Your task to perform on an android device: turn notification dots off Image 0: 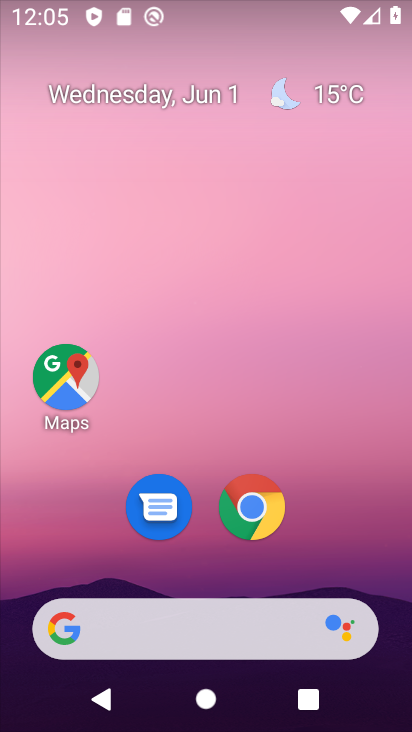
Step 0: drag from (328, 529) to (251, 138)
Your task to perform on an android device: turn notification dots off Image 1: 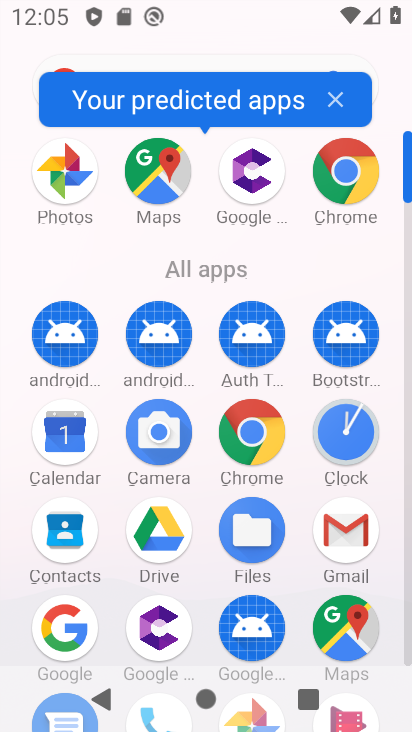
Step 1: drag from (113, 519) to (104, 247)
Your task to perform on an android device: turn notification dots off Image 2: 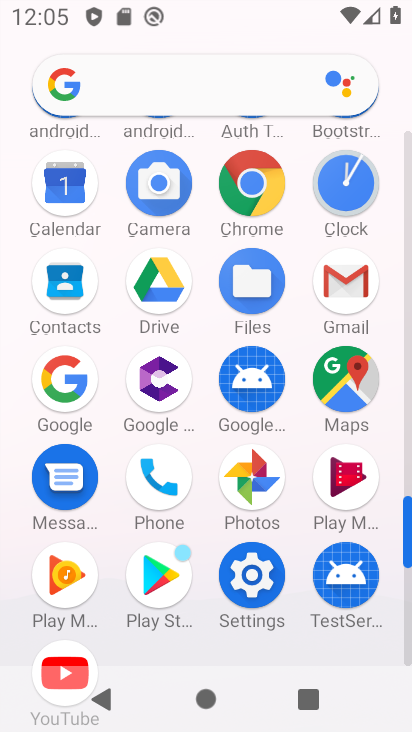
Step 2: click (252, 576)
Your task to perform on an android device: turn notification dots off Image 3: 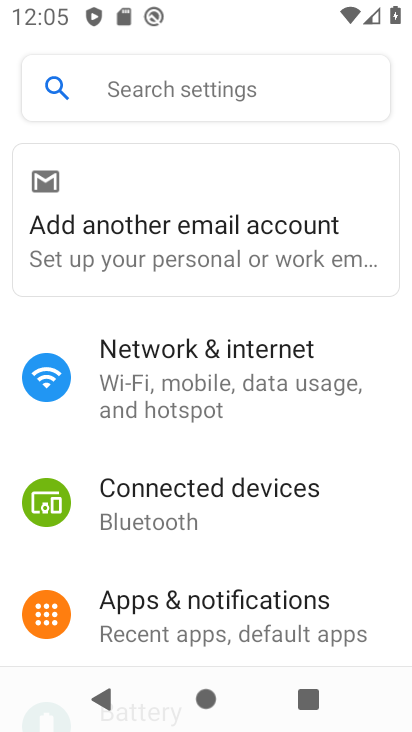
Step 3: drag from (190, 581) to (236, 502)
Your task to perform on an android device: turn notification dots off Image 4: 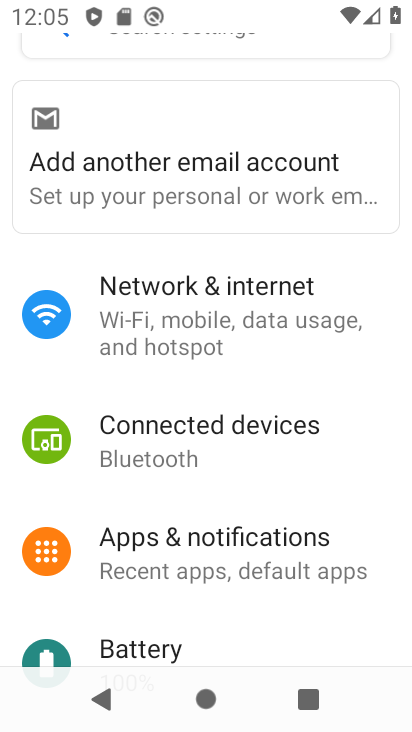
Step 4: click (232, 549)
Your task to perform on an android device: turn notification dots off Image 5: 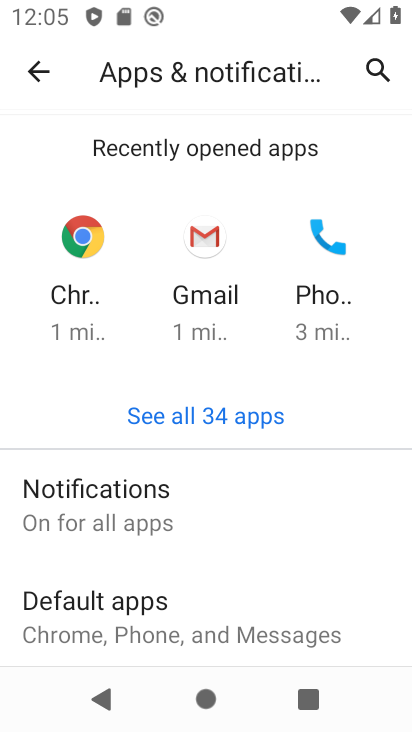
Step 5: click (107, 510)
Your task to perform on an android device: turn notification dots off Image 6: 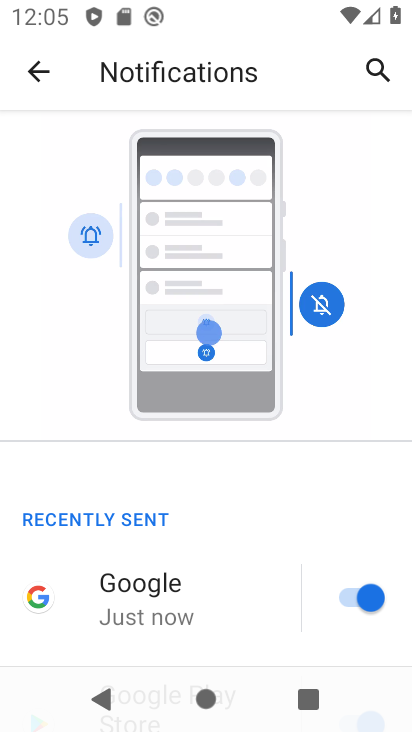
Step 6: drag from (210, 546) to (231, 395)
Your task to perform on an android device: turn notification dots off Image 7: 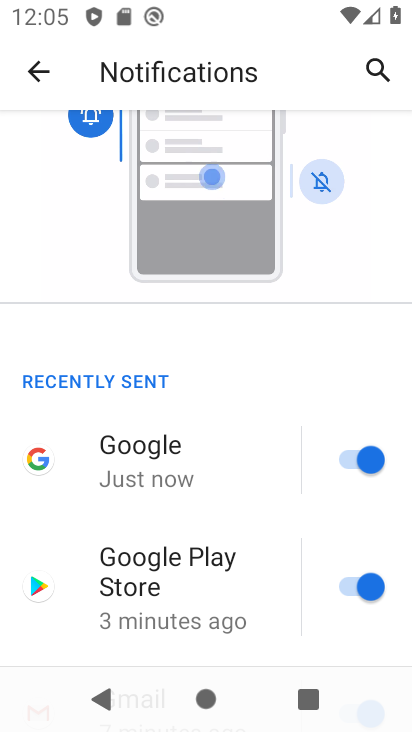
Step 7: drag from (185, 506) to (190, 414)
Your task to perform on an android device: turn notification dots off Image 8: 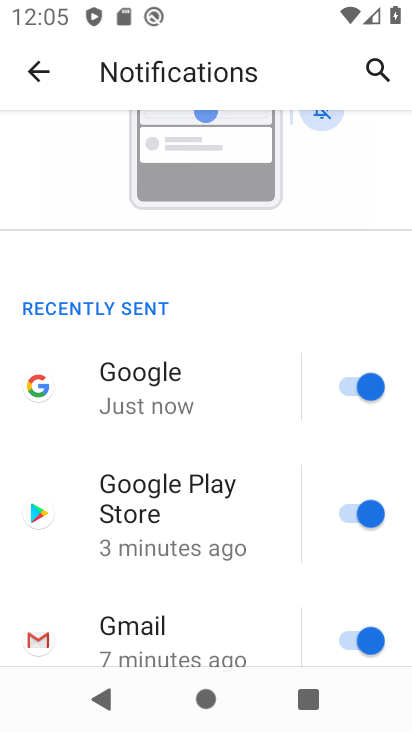
Step 8: drag from (144, 585) to (171, 440)
Your task to perform on an android device: turn notification dots off Image 9: 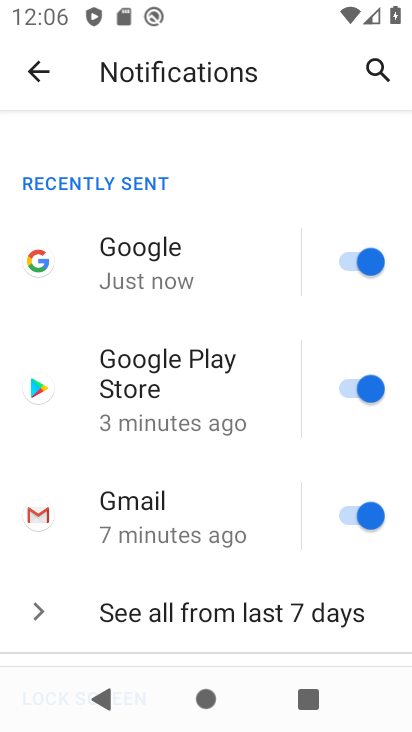
Step 9: drag from (139, 551) to (169, 396)
Your task to perform on an android device: turn notification dots off Image 10: 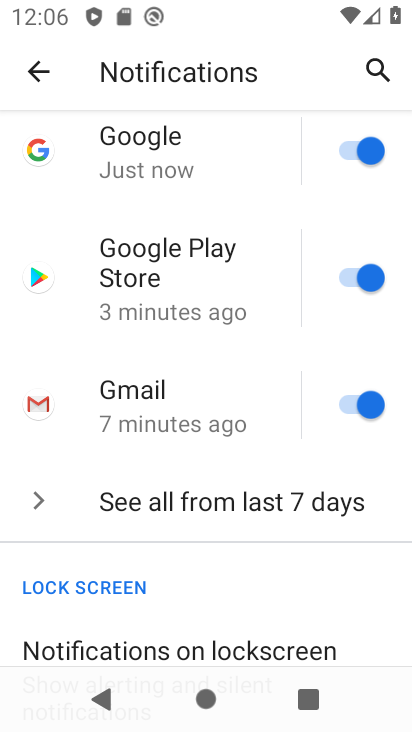
Step 10: drag from (161, 619) to (211, 435)
Your task to perform on an android device: turn notification dots off Image 11: 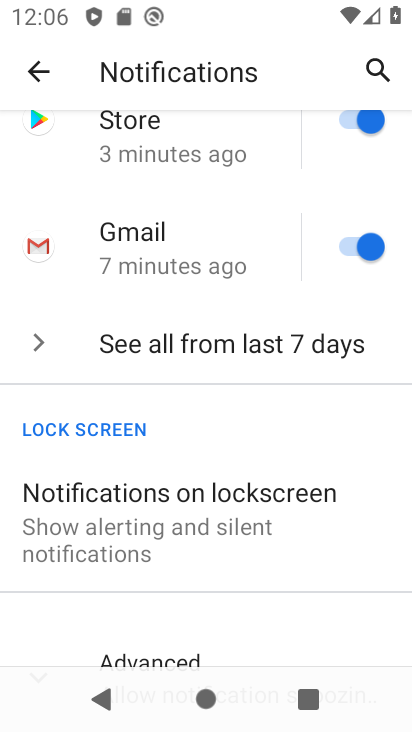
Step 11: drag from (188, 615) to (215, 525)
Your task to perform on an android device: turn notification dots off Image 12: 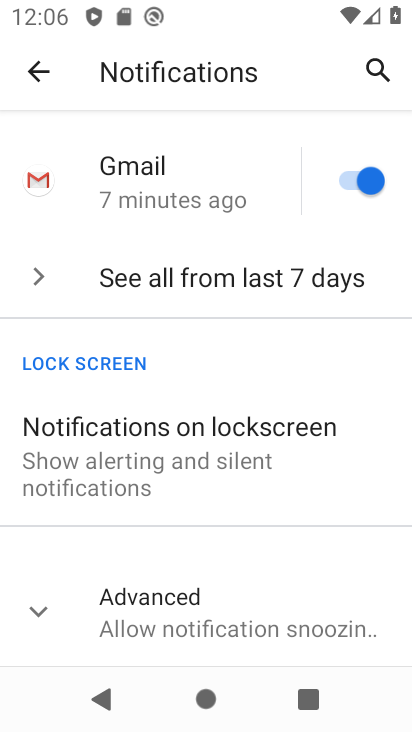
Step 12: click (231, 622)
Your task to perform on an android device: turn notification dots off Image 13: 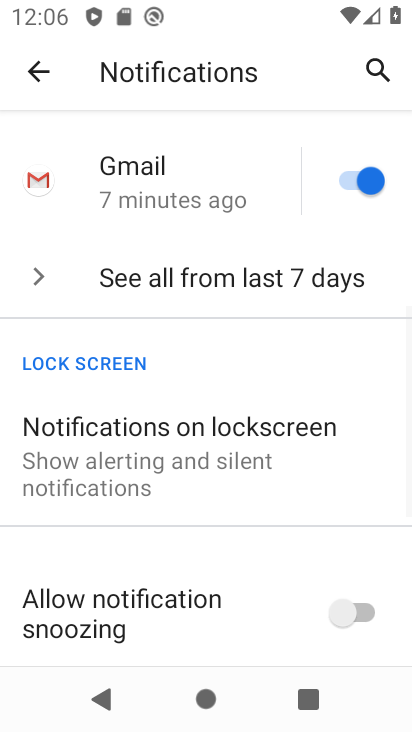
Step 13: drag from (199, 644) to (190, 485)
Your task to perform on an android device: turn notification dots off Image 14: 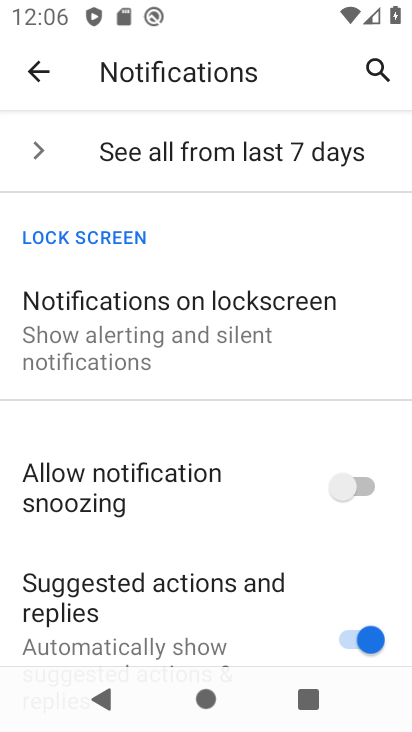
Step 14: drag from (161, 623) to (171, 422)
Your task to perform on an android device: turn notification dots off Image 15: 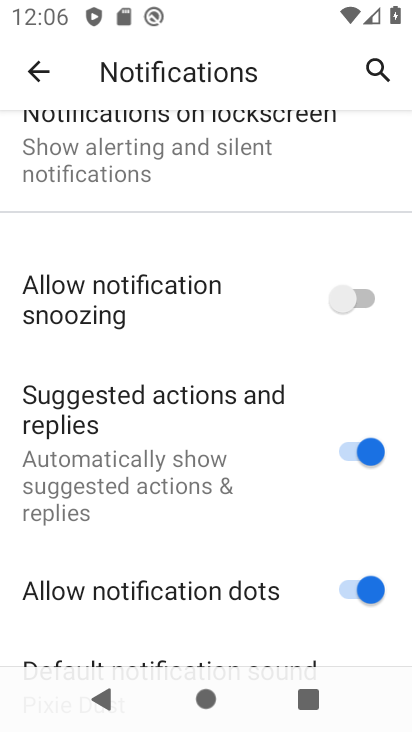
Step 15: drag from (134, 551) to (170, 443)
Your task to perform on an android device: turn notification dots off Image 16: 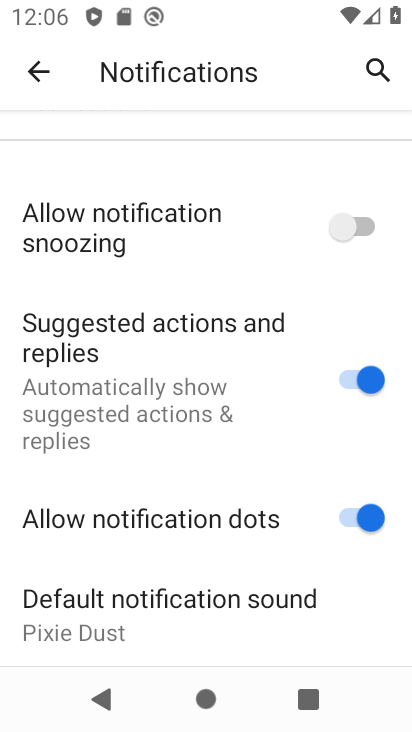
Step 16: click (356, 519)
Your task to perform on an android device: turn notification dots off Image 17: 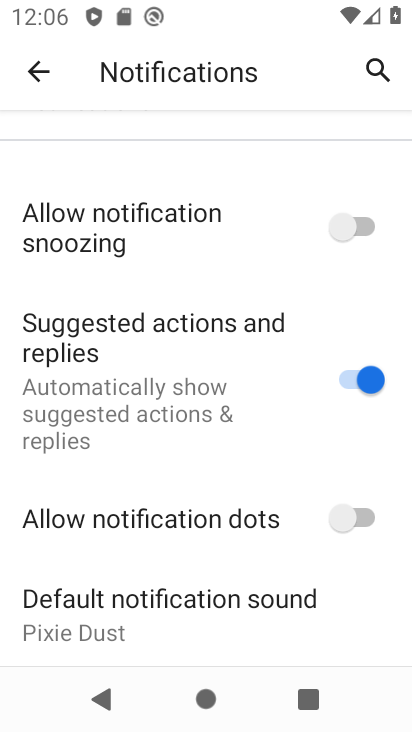
Step 17: task complete